Your task to perform on an android device: set the stopwatch Image 0: 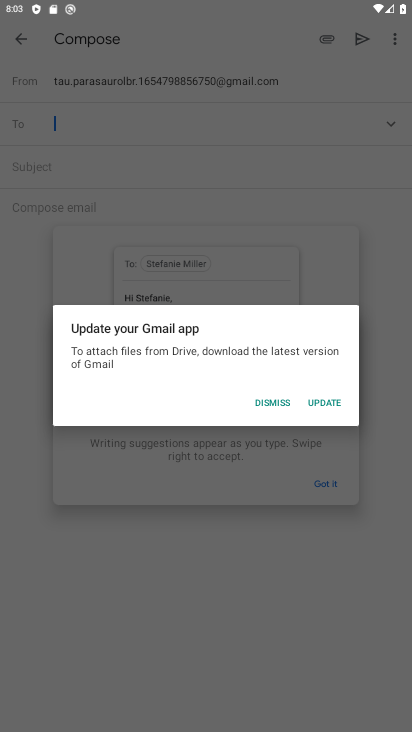
Step 0: press home button
Your task to perform on an android device: set the stopwatch Image 1: 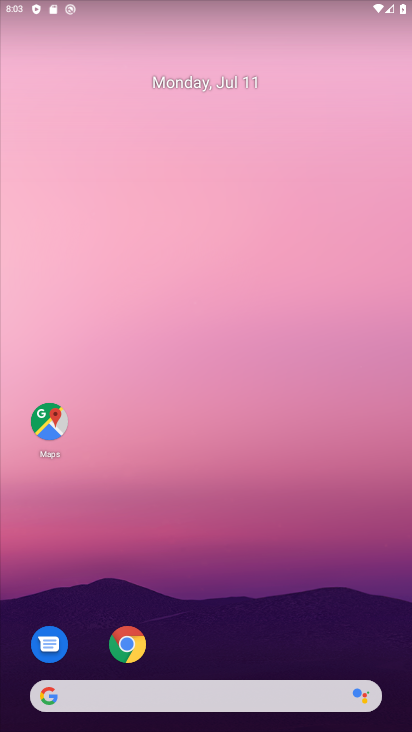
Step 1: drag from (206, 695) to (321, 223)
Your task to perform on an android device: set the stopwatch Image 2: 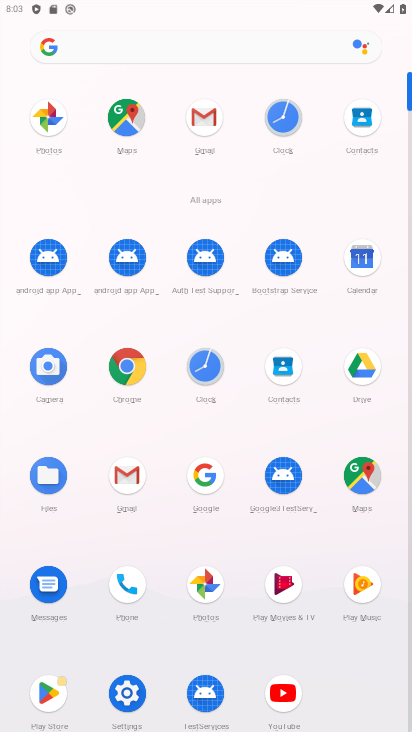
Step 2: click (214, 369)
Your task to perform on an android device: set the stopwatch Image 3: 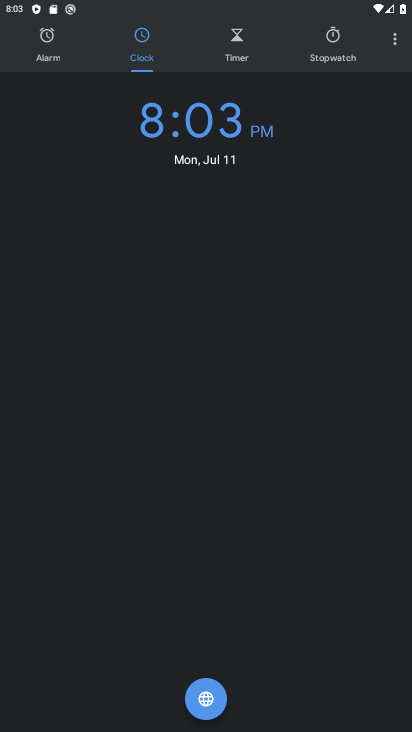
Step 3: click (331, 54)
Your task to perform on an android device: set the stopwatch Image 4: 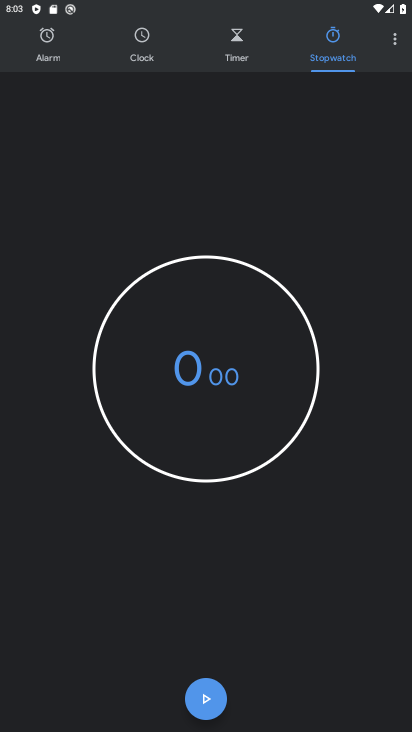
Step 4: click (215, 399)
Your task to perform on an android device: set the stopwatch Image 5: 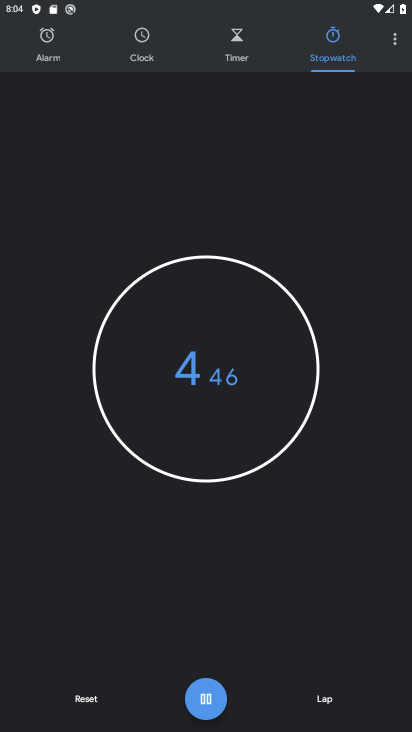
Step 5: click (221, 391)
Your task to perform on an android device: set the stopwatch Image 6: 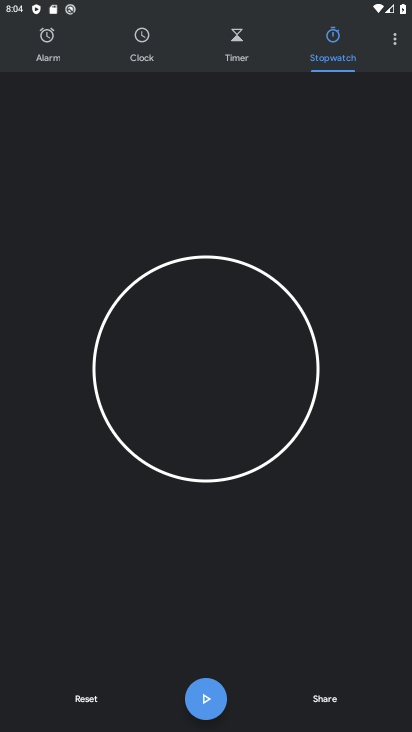
Step 6: task complete